Your task to perform on an android device: turn off notifications settings in the gmail app Image 0: 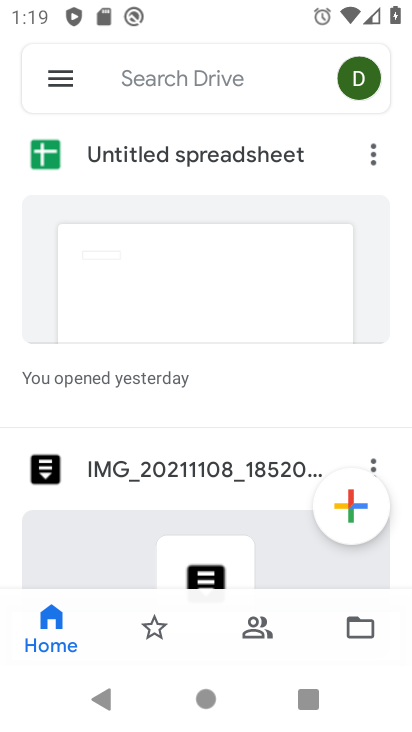
Step 0: press home button
Your task to perform on an android device: turn off notifications settings in the gmail app Image 1: 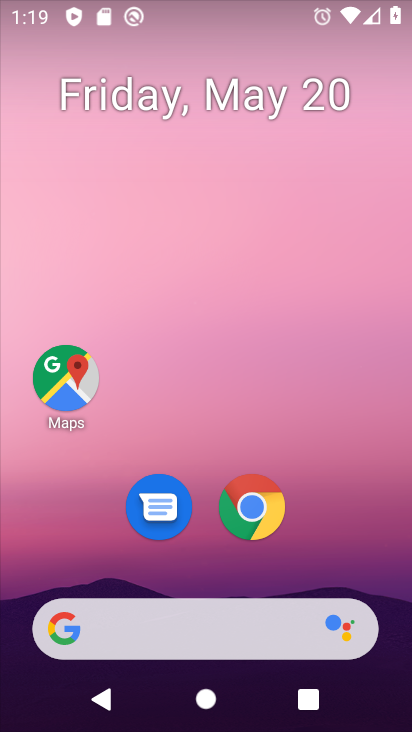
Step 1: drag from (374, 557) to (223, 208)
Your task to perform on an android device: turn off notifications settings in the gmail app Image 2: 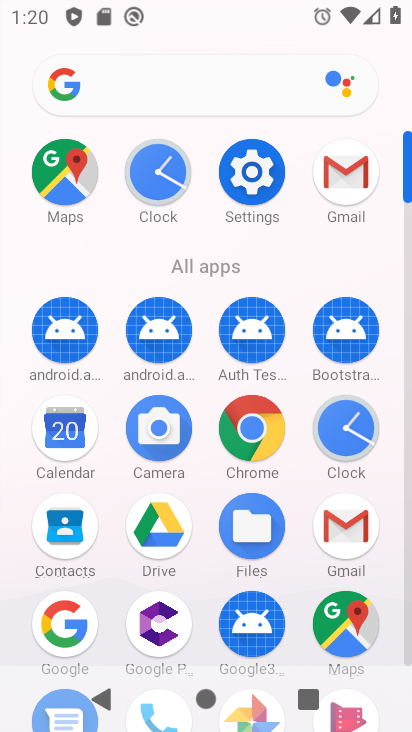
Step 2: click (338, 197)
Your task to perform on an android device: turn off notifications settings in the gmail app Image 3: 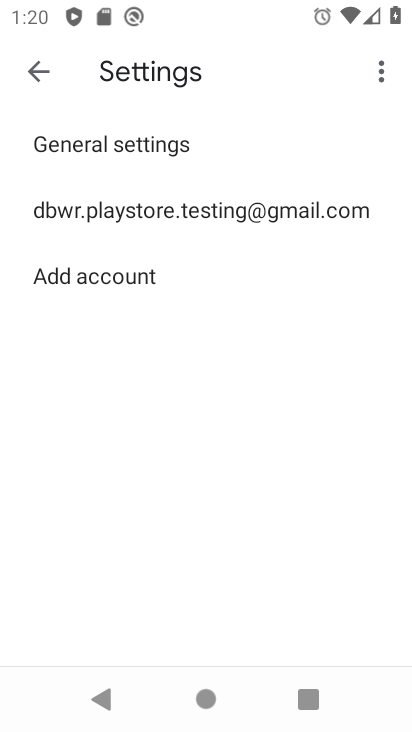
Step 3: click (338, 197)
Your task to perform on an android device: turn off notifications settings in the gmail app Image 4: 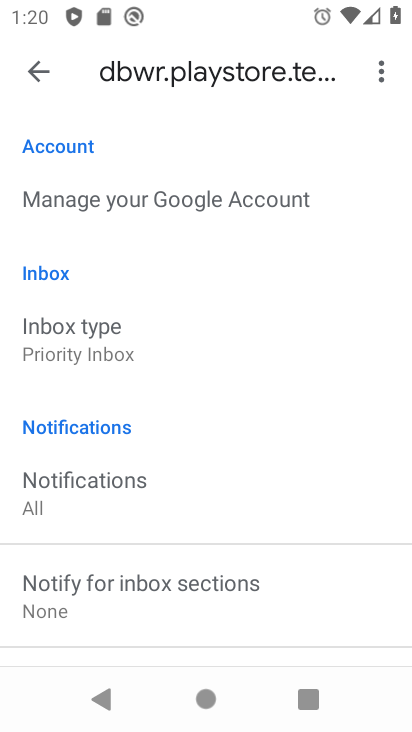
Step 4: drag from (329, 583) to (273, 210)
Your task to perform on an android device: turn off notifications settings in the gmail app Image 5: 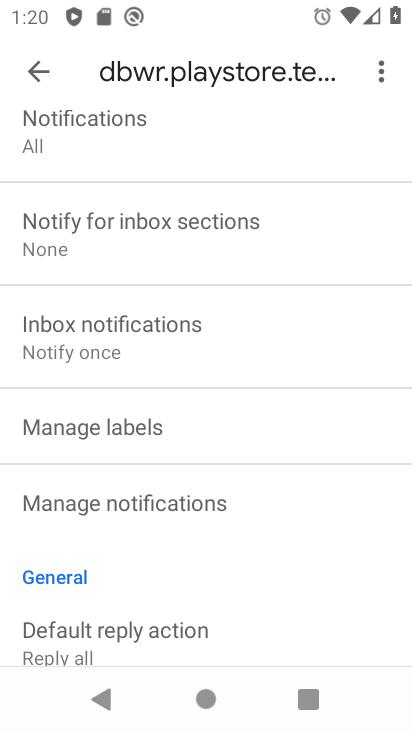
Step 5: drag from (278, 384) to (239, 85)
Your task to perform on an android device: turn off notifications settings in the gmail app Image 6: 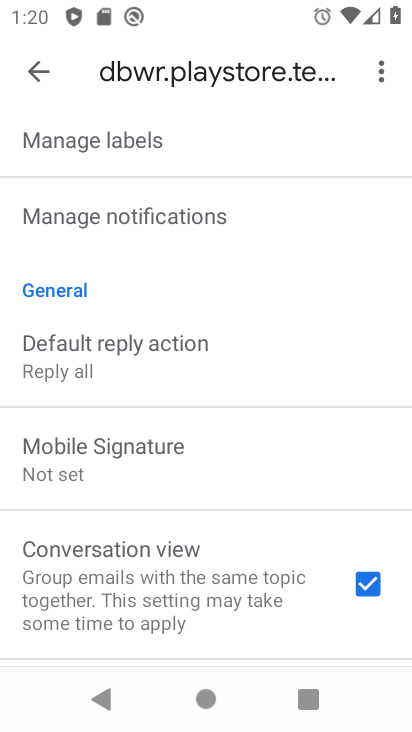
Step 6: click (225, 209)
Your task to perform on an android device: turn off notifications settings in the gmail app Image 7: 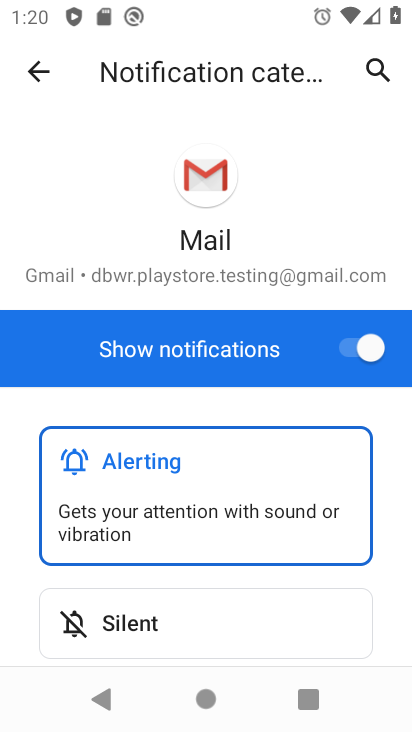
Step 7: drag from (393, 565) to (295, 233)
Your task to perform on an android device: turn off notifications settings in the gmail app Image 8: 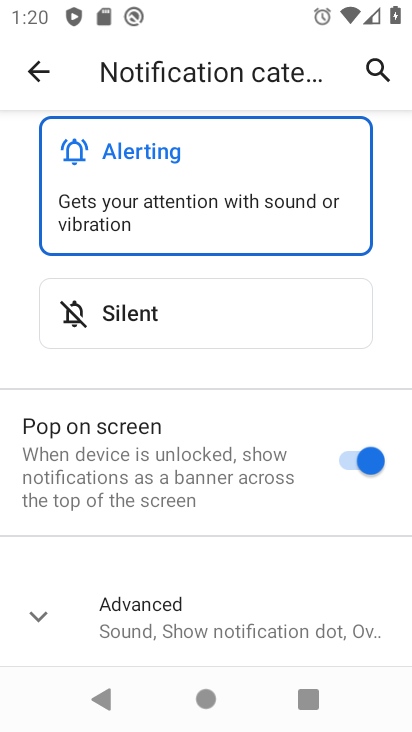
Step 8: click (353, 454)
Your task to perform on an android device: turn off notifications settings in the gmail app Image 9: 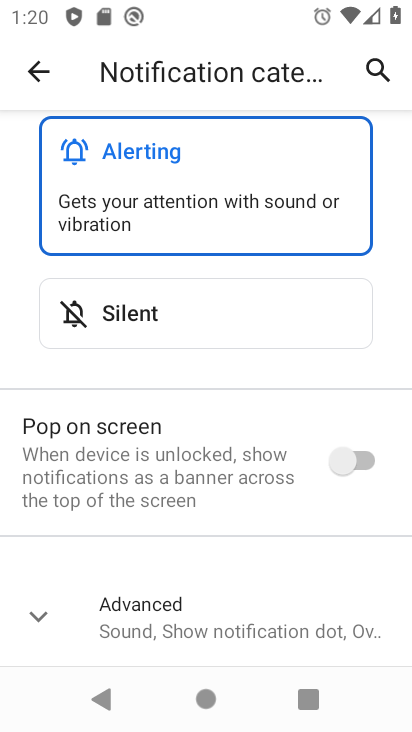
Step 9: task complete